Your task to perform on an android device: Open calendar and show me the fourth week of next month Image 0: 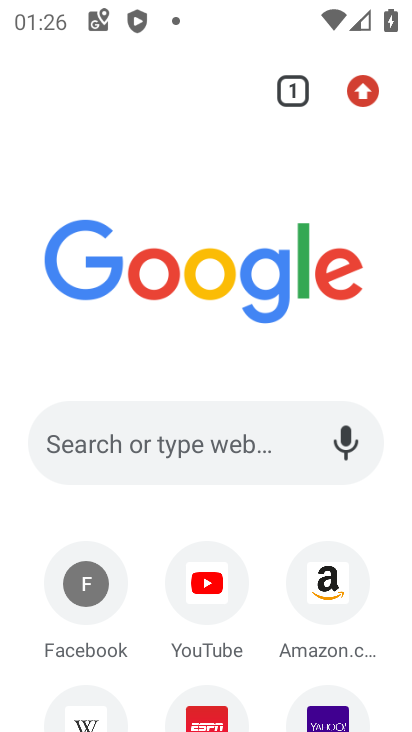
Step 0: press home button
Your task to perform on an android device: Open calendar and show me the fourth week of next month Image 1: 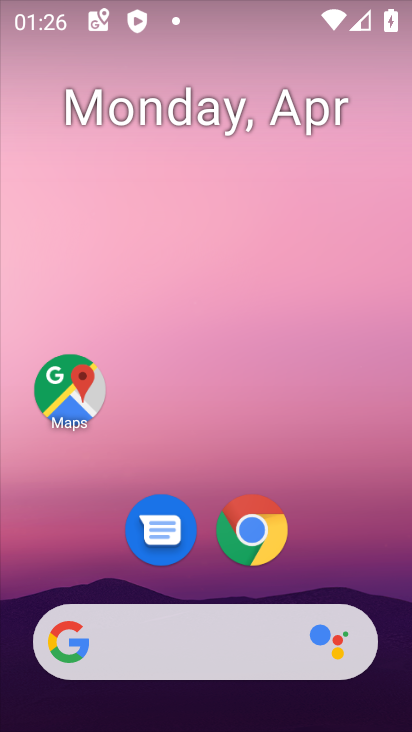
Step 1: drag from (360, 571) to (247, 73)
Your task to perform on an android device: Open calendar and show me the fourth week of next month Image 2: 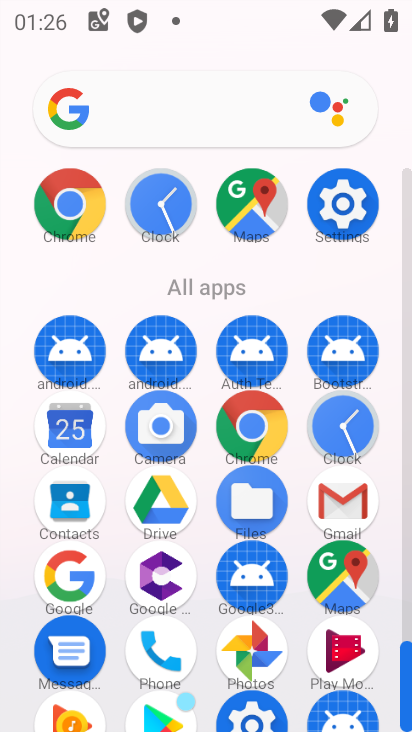
Step 2: click (81, 435)
Your task to perform on an android device: Open calendar and show me the fourth week of next month Image 3: 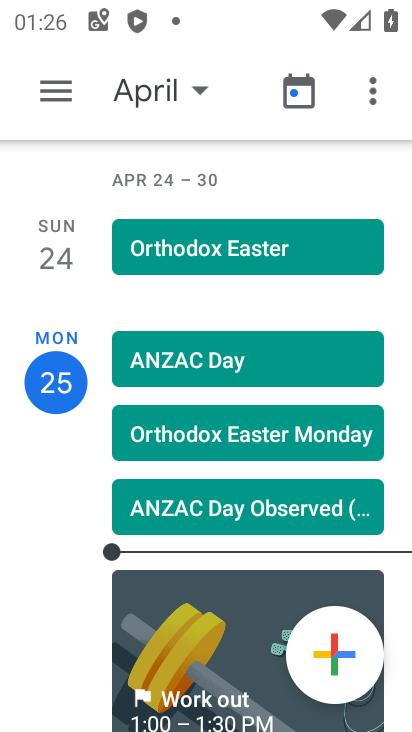
Step 3: click (192, 87)
Your task to perform on an android device: Open calendar and show me the fourth week of next month Image 4: 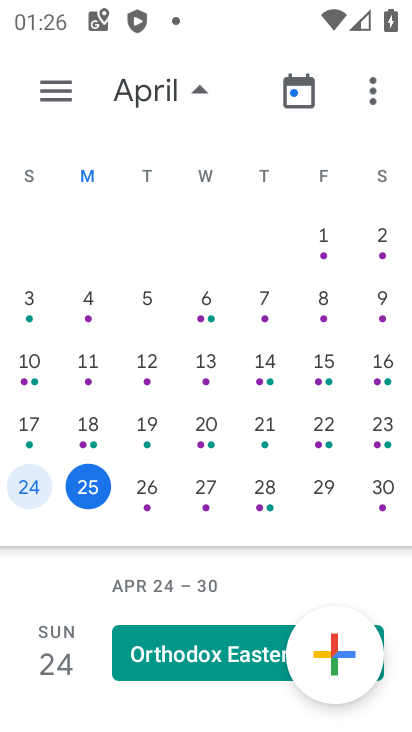
Step 4: drag from (349, 343) to (11, 373)
Your task to perform on an android device: Open calendar and show me the fourth week of next month Image 5: 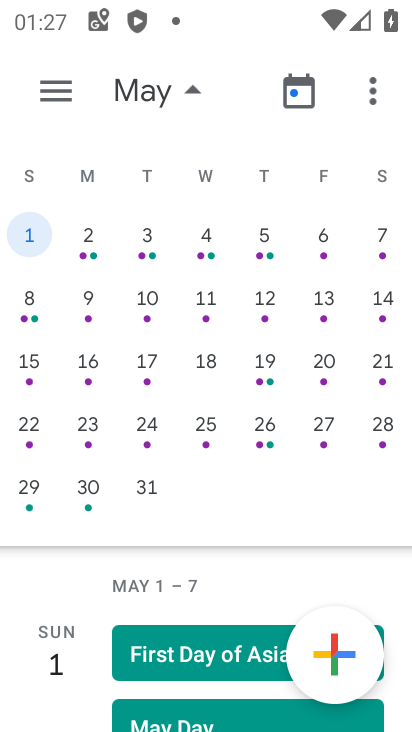
Step 5: click (141, 425)
Your task to perform on an android device: Open calendar and show me the fourth week of next month Image 6: 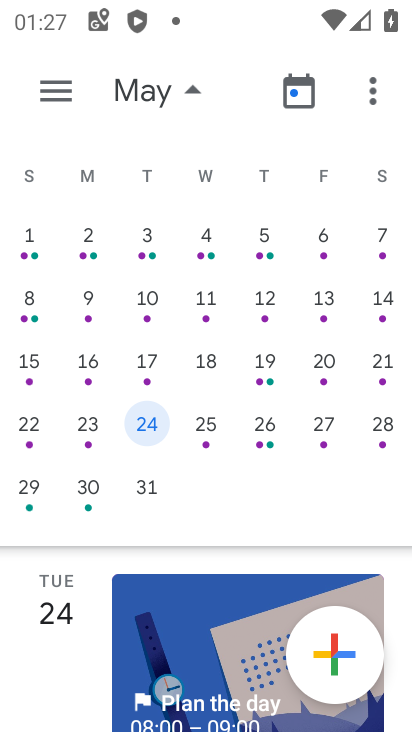
Step 6: task complete